Your task to perform on an android device: Open sound settings Image 0: 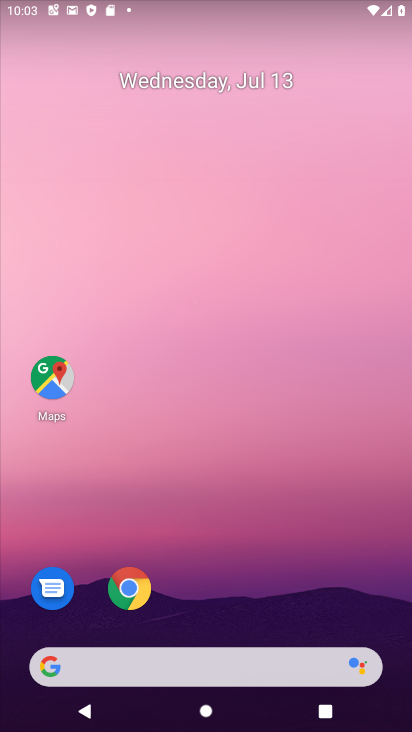
Step 0: drag from (179, 651) to (333, 548)
Your task to perform on an android device: Open sound settings Image 1: 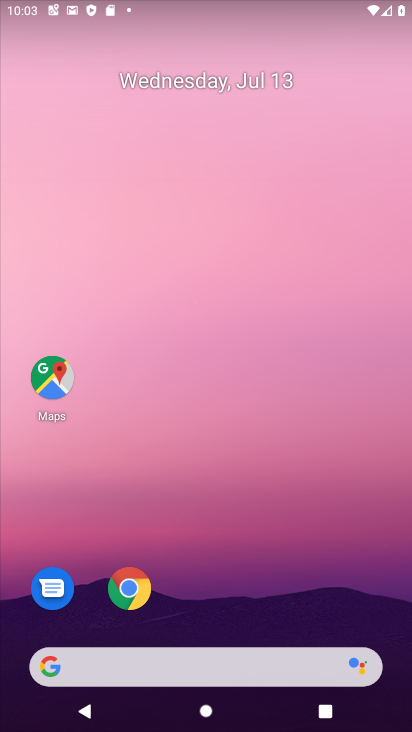
Step 1: drag from (222, 558) to (177, 34)
Your task to perform on an android device: Open sound settings Image 2: 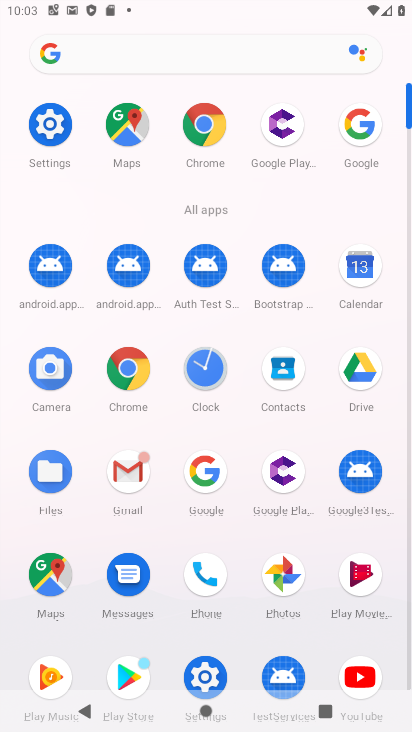
Step 2: click (210, 675)
Your task to perform on an android device: Open sound settings Image 3: 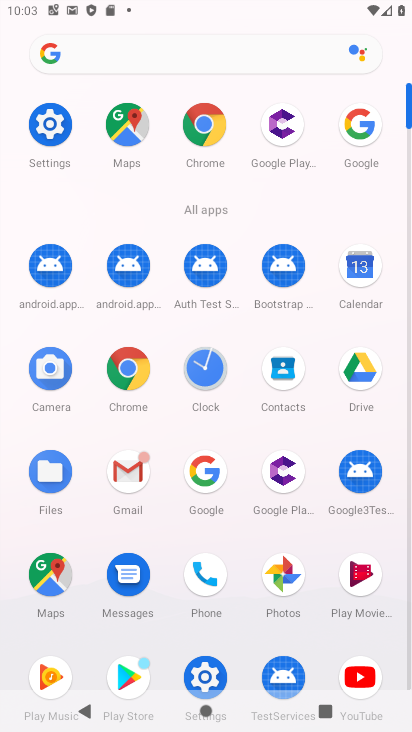
Step 3: click (206, 672)
Your task to perform on an android device: Open sound settings Image 4: 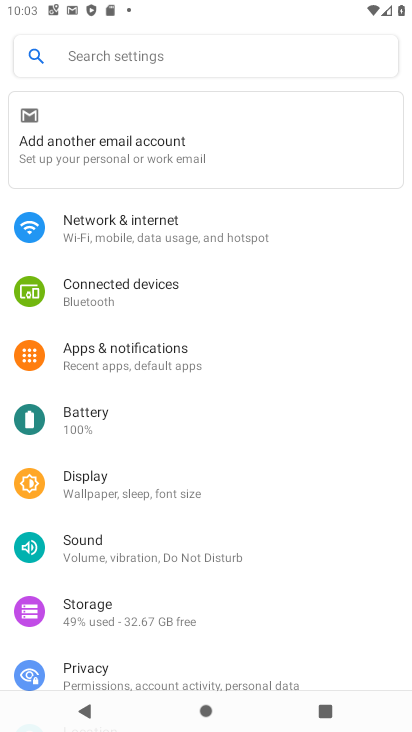
Step 4: click (138, 536)
Your task to perform on an android device: Open sound settings Image 5: 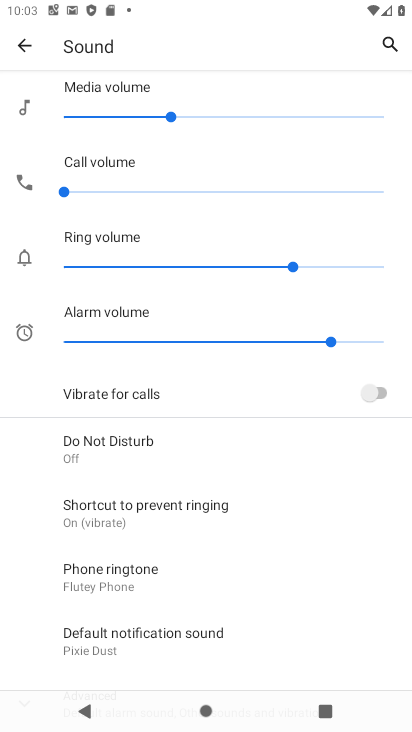
Step 5: task complete